Your task to perform on an android device: Open Youtube and go to the subscriptions tab Image 0: 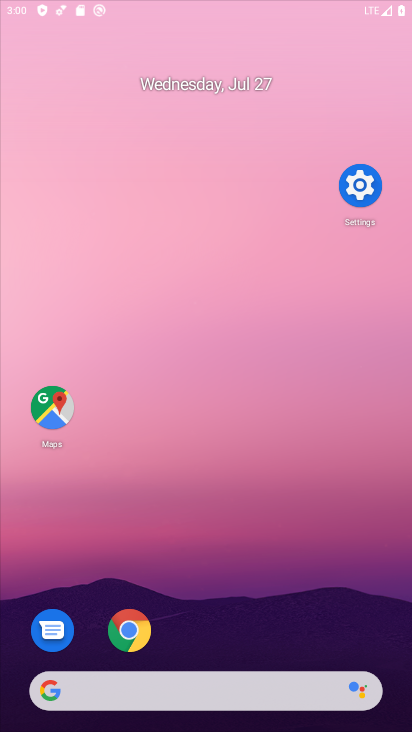
Step 0: press home button
Your task to perform on an android device: Open Youtube and go to the subscriptions tab Image 1: 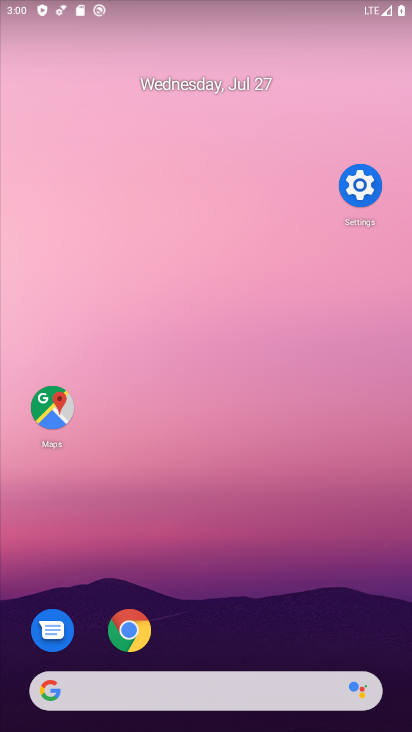
Step 1: press home button
Your task to perform on an android device: Open Youtube and go to the subscriptions tab Image 2: 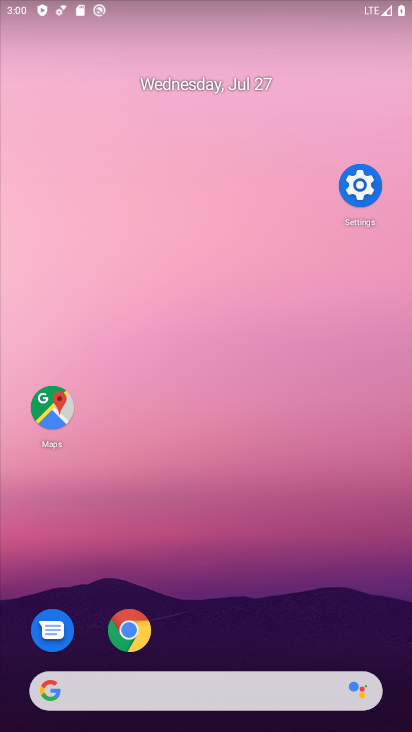
Step 2: drag from (213, 643) to (288, 27)
Your task to perform on an android device: Open Youtube and go to the subscriptions tab Image 3: 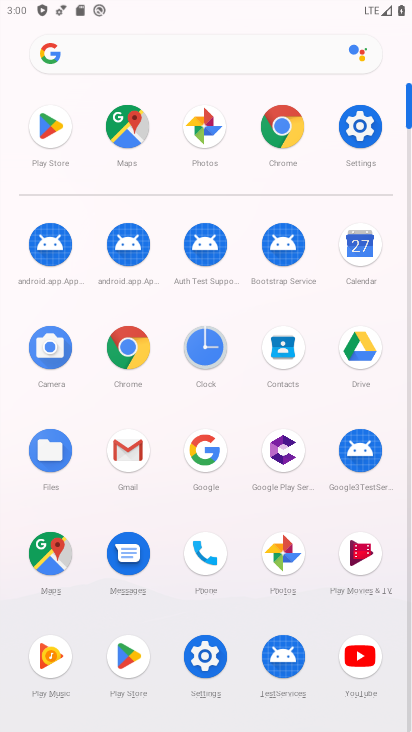
Step 3: click (355, 658)
Your task to perform on an android device: Open Youtube and go to the subscriptions tab Image 4: 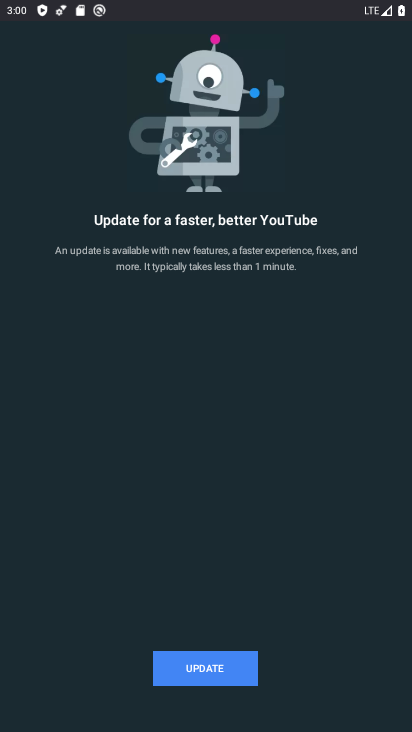
Step 4: click (224, 681)
Your task to perform on an android device: Open Youtube and go to the subscriptions tab Image 5: 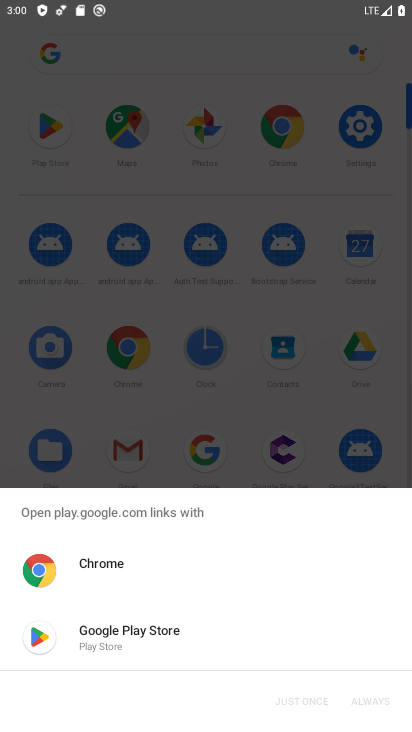
Step 5: click (132, 646)
Your task to perform on an android device: Open Youtube and go to the subscriptions tab Image 6: 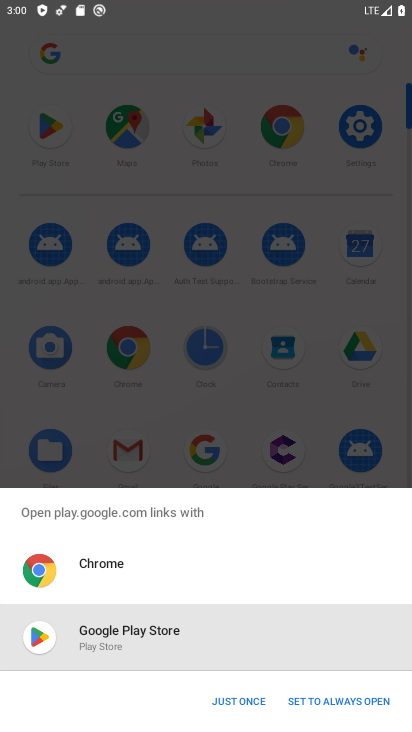
Step 6: click (217, 698)
Your task to perform on an android device: Open Youtube and go to the subscriptions tab Image 7: 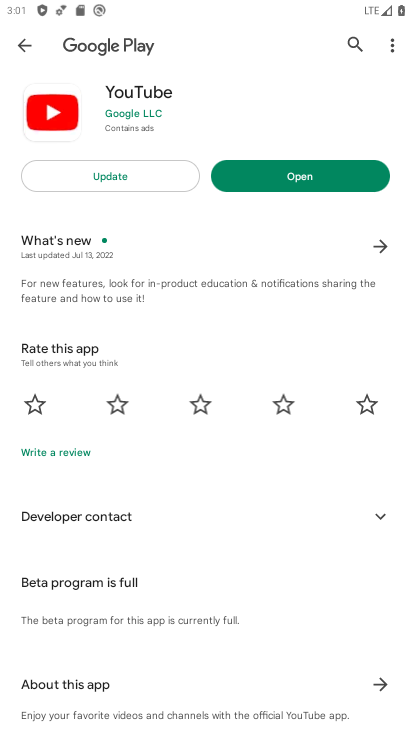
Step 7: click (143, 181)
Your task to perform on an android device: Open Youtube and go to the subscriptions tab Image 8: 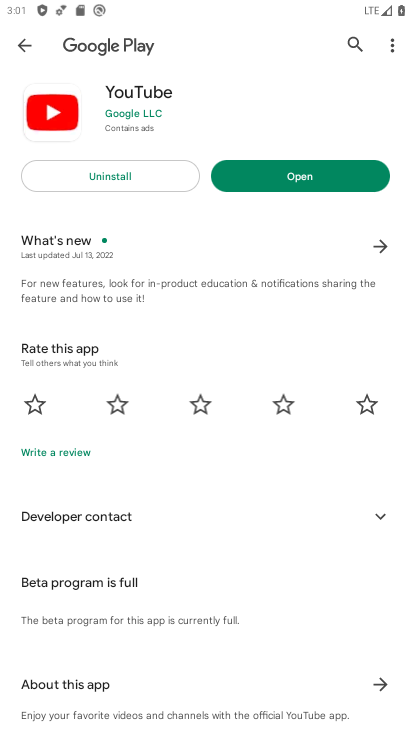
Step 8: click (238, 175)
Your task to perform on an android device: Open Youtube and go to the subscriptions tab Image 9: 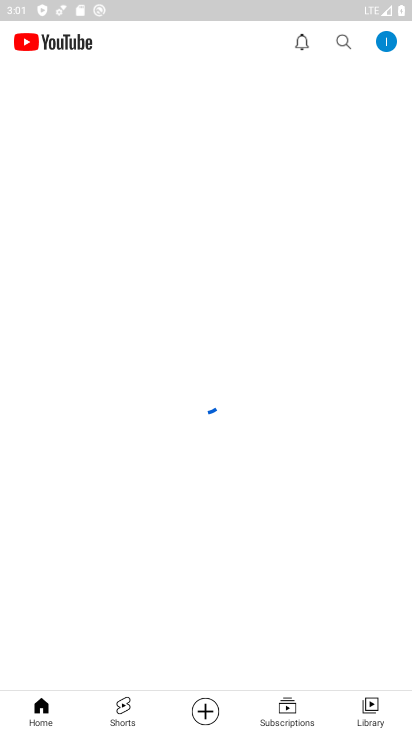
Step 9: click (258, 708)
Your task to perform on an android device: Open Youtube and go to the subscriptions tab Image 10: 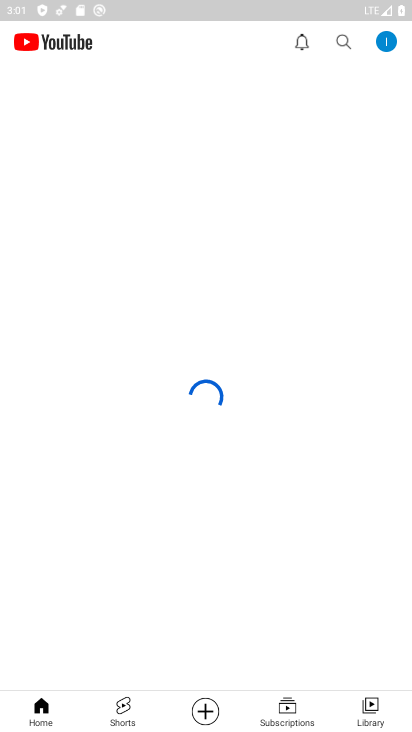
Step 10: click (293, 706)
Your task to perform on an android device: Open Youtube and go to the subscriptions tab Image 11: 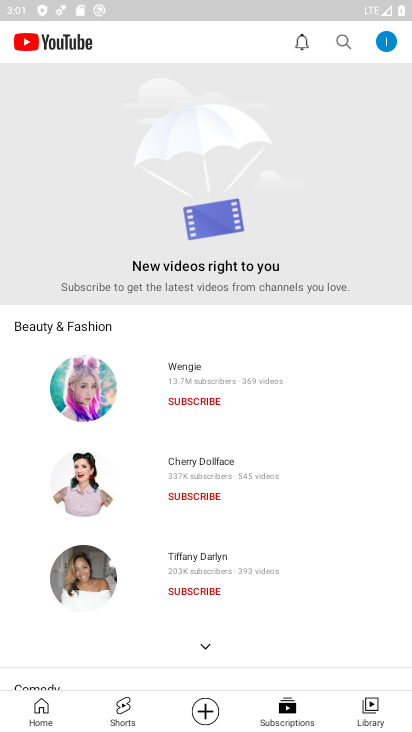
Step 11: task complete